Your task to perform on an android device: Open maps Image 0: 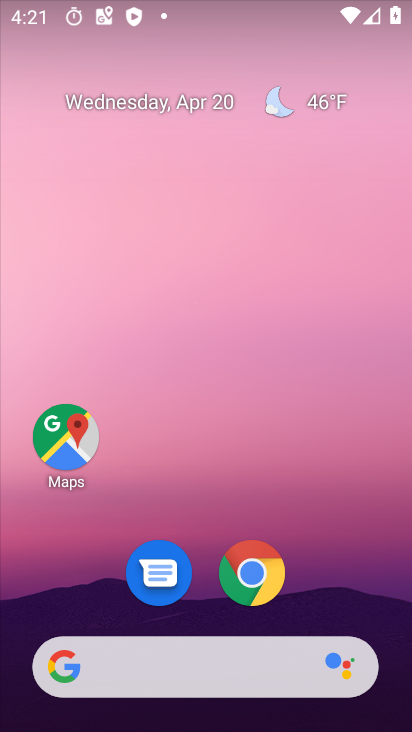
Step 0: click (76, 423)
Your task to perform on an android device: Open maps Image 1: 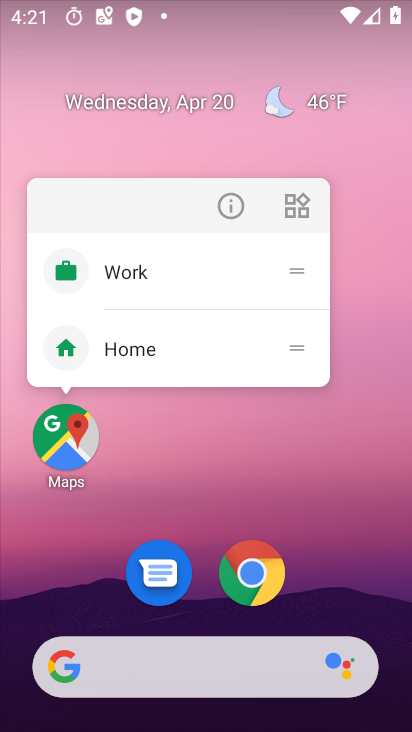
Step 1: click (58, 431)
Your task to perform on an android device: Open maps Image 2: 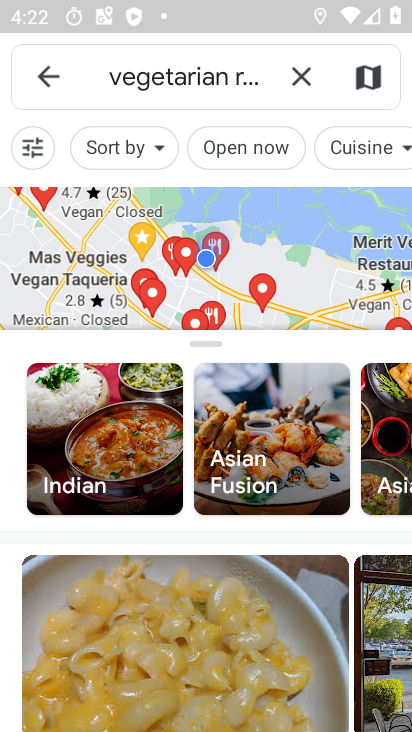
Step 2: task complete